Your task to perform on an android device: show emergency info Image 0: 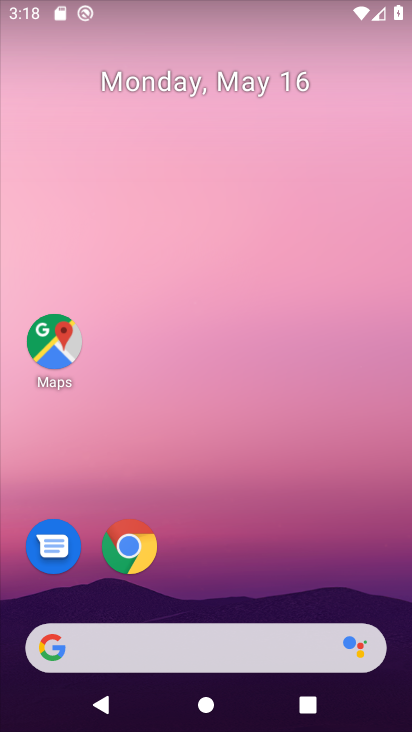
Step 0: drag from (382, 539) to (386, 119)
Your task to perform on an android device: show emergency info Image 1: 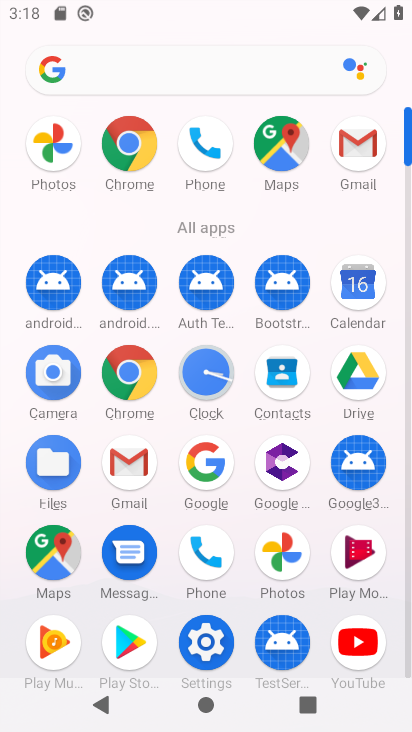
Step 1: click (216, 647)
Your task to perform on an android device: show emergency info Image 2: 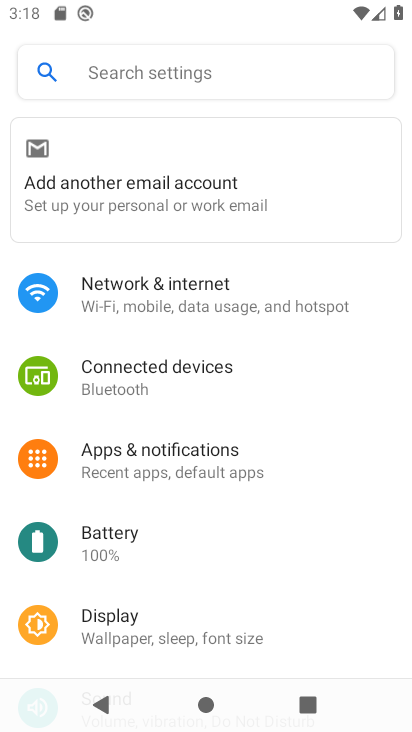
Step 2: drag from (317, 573) to (347, 453)
Your task to perform on an android device: show emergency info Image 3: 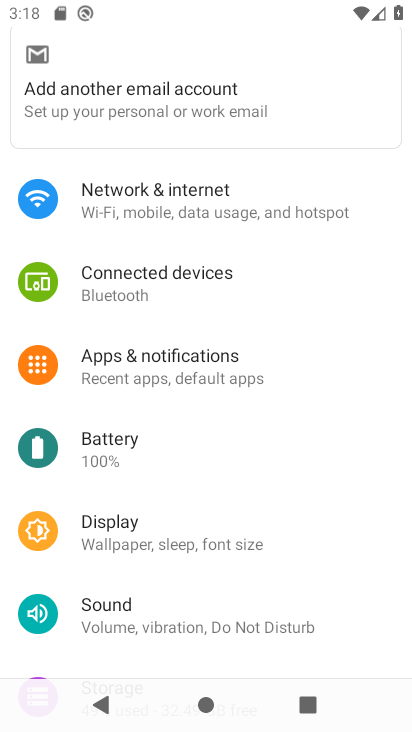
Step 3: drag from (361, 584) to (366, 444)
Your task to perform on an android device: show emergency info Image 4: 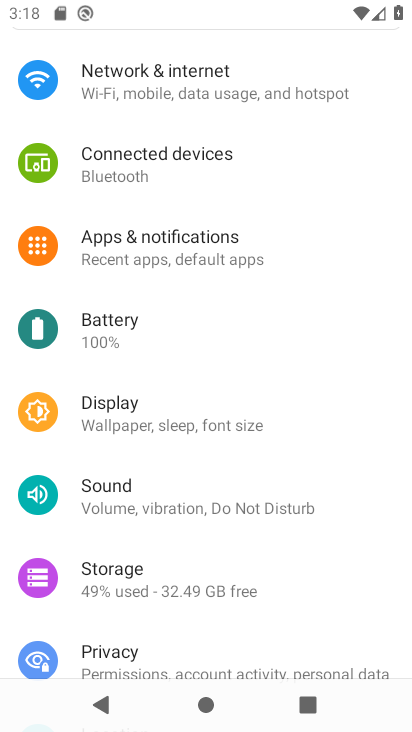
Step 4: drag from (330, 558) to (324, 476)
Your task to perform on an android device: show emergency info Image 5: 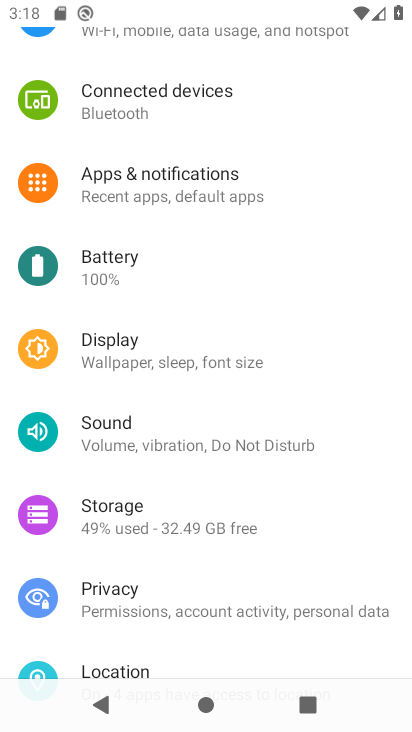
Step 5: drag from (334, 661) to (333, 455)
Your task to perform on an android device: show emergency info Image 6: 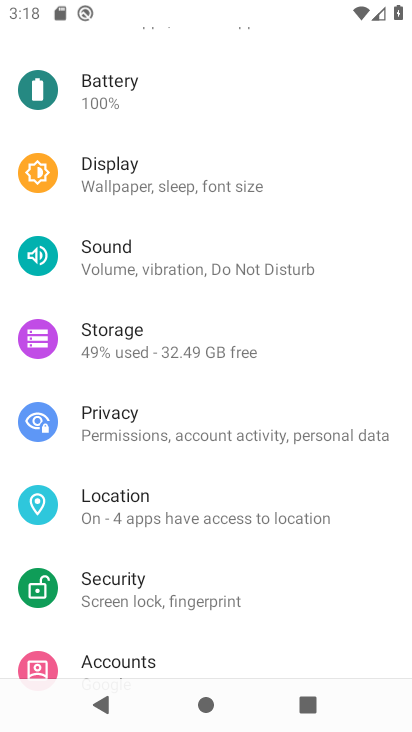
Step 6: drag from (323, 642) to (333, 486)
Your task to perform on an android device: show emergency info Image 7: 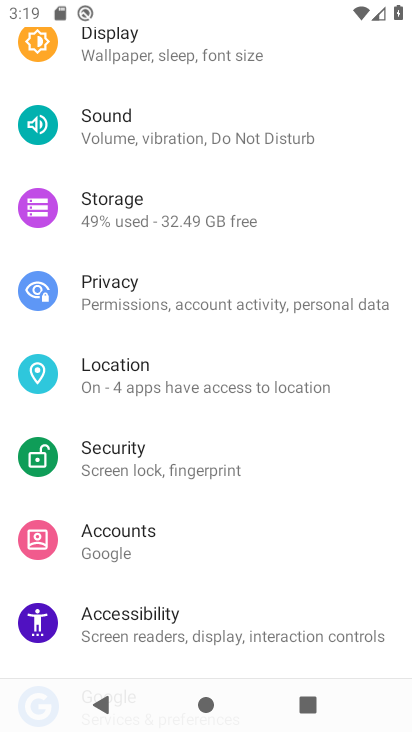
Step 7: drag from (321, 649) to (321, 438)
Your task to perform on an android device: show emergency info Image 8: 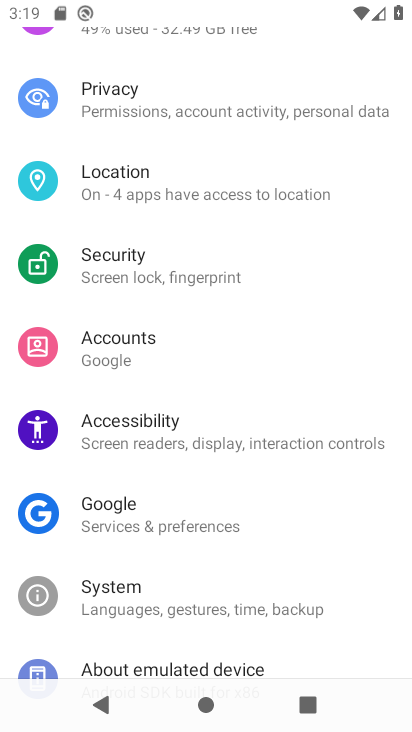
Step 8: drag from (320, 633) to (315, 480)
Your task to perform on an android device: show emergency info Image 9: 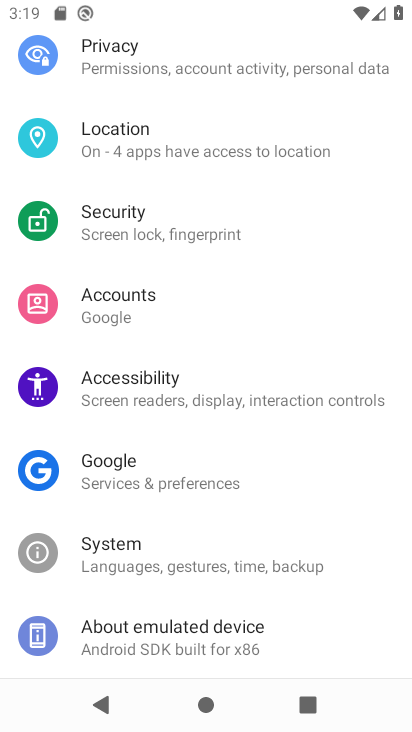
Step 9: click (225, 639)
Your task to perform on an android device: show emergency info Image 10: 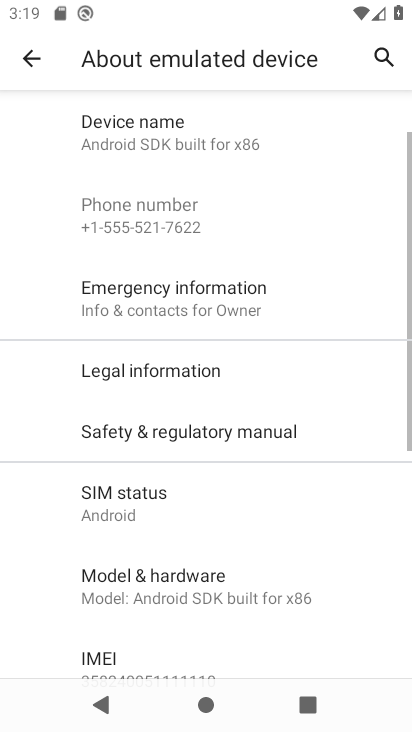
Step 10: click (316, 326)
Your task to perform on an android device: show emergency info Image 11: 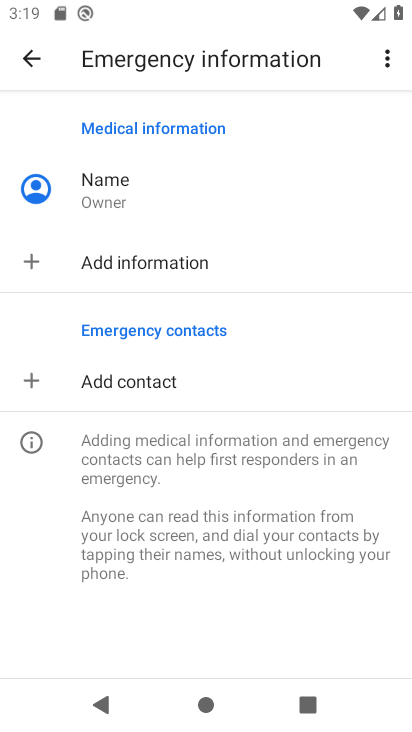
Step 11: task complete